Your task to perform on an android device: turn off location history Image 0: 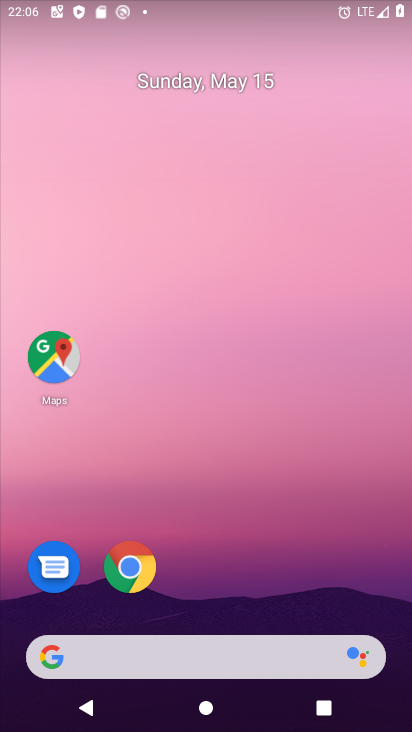
Step 0: drag from (280, 557) to (284, 4)
Your task to perform on an android device: turn off location history Image 1: 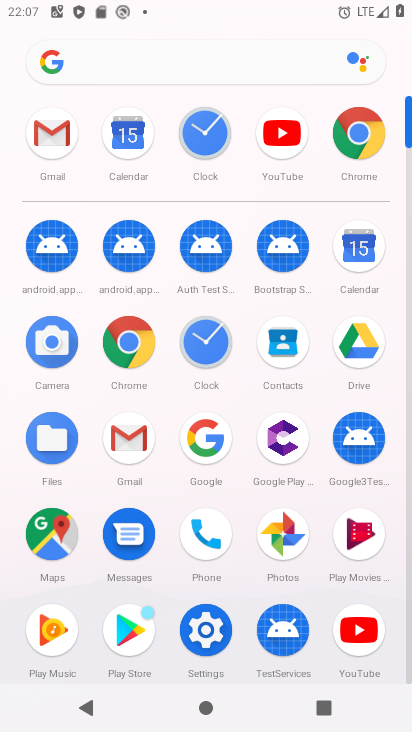
Step 1: click (209, 623)
Your task to perform on an android device: turn off location history Image 2: 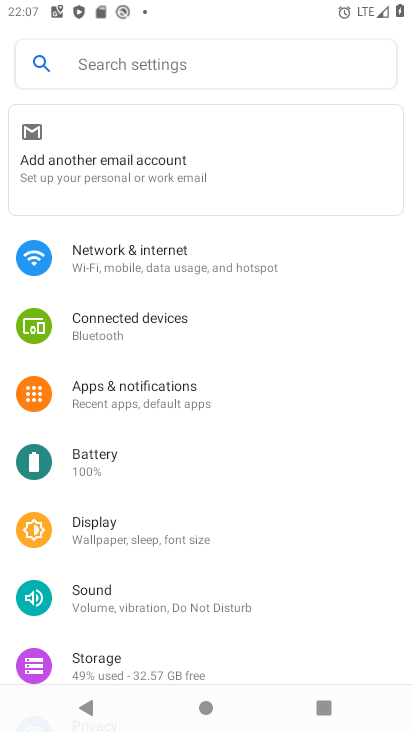
Step 2: drag from (292, 530) to (301, 212)
Your task to perform on an android device: turn off location history Image 3: 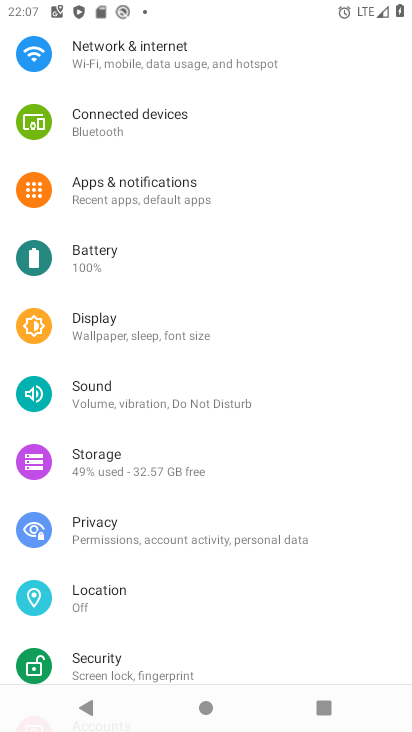
Step 3: click (151, 589)
Your task to perform on an android device: turn off location history Image 4: 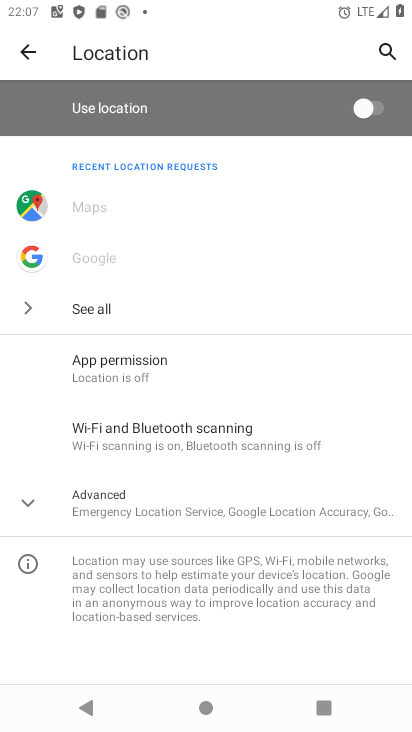
Step 4: task complete